Your task to perform on an android device: create a new album in the google photos Image 0: 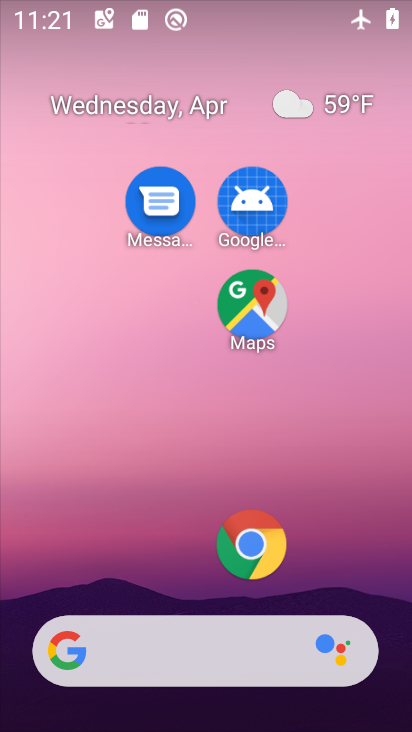
Step 0: drag from (174, 491) to (159, 141)
Your task to perform on an android device: create a new album in the google photos Image 1: 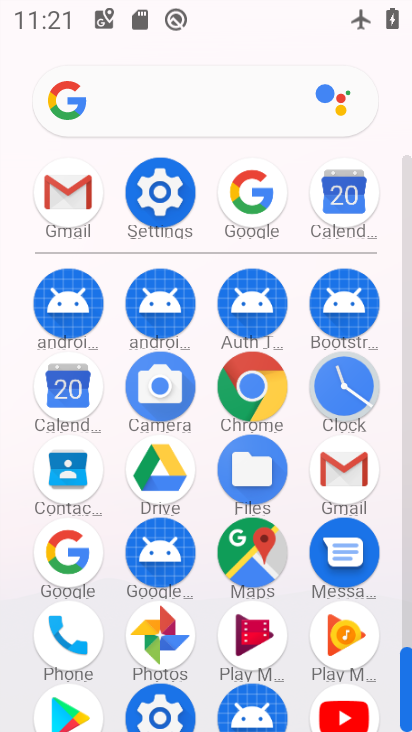
Step 1: click (154, 613)
Your task to perform on an android device: create a new album in the google photos Image 2: 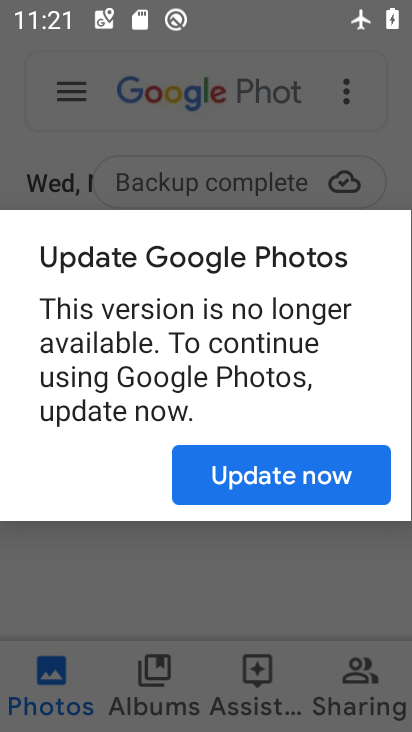
Step 2: click (248, 455)
Your task to perform on an android device: create a new album in the google photos Image 3: 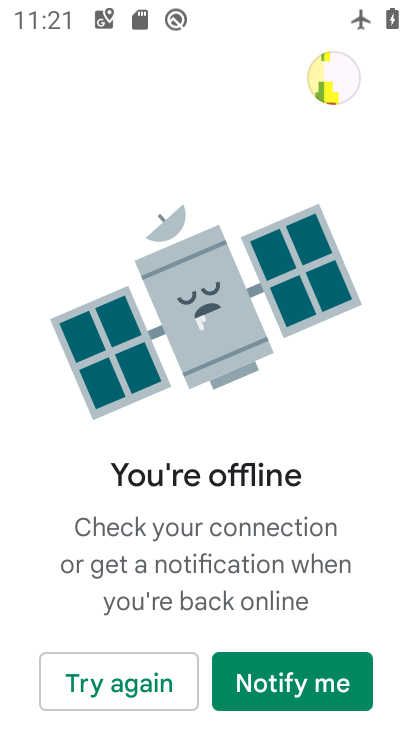
Step 3: press back button
Your task to perform on an android device: create a new album in the google photos Image 4: 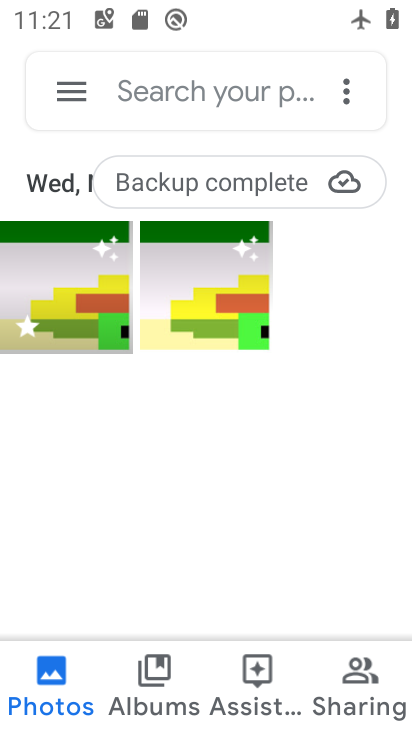
Step 4: click (337, 87)
Your task to perform on an android device: create a new album in the google photos Image 5: 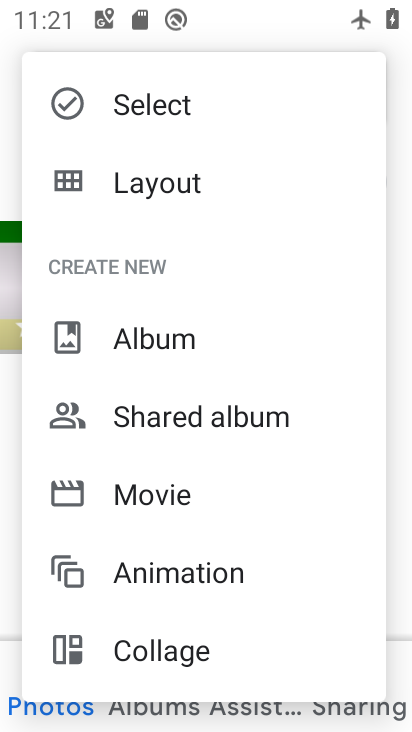
Step 5: click (147, 313)
Your task to perform on an android device: create a new album in the google photos Image 6: 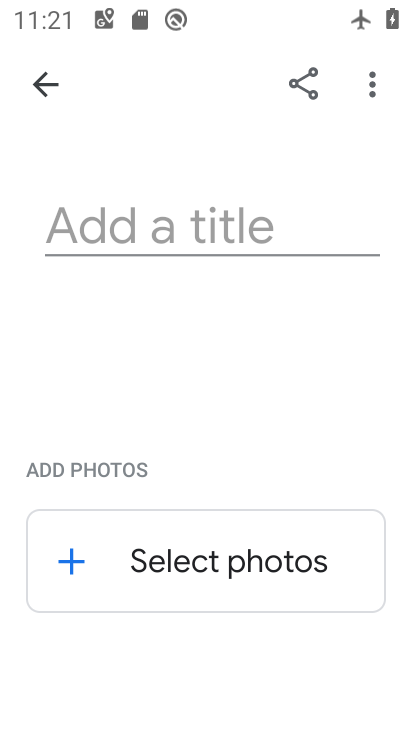
Step 6: click (222, 240)
Your task to perform on an android device: create a new album in the google photos Image 7: 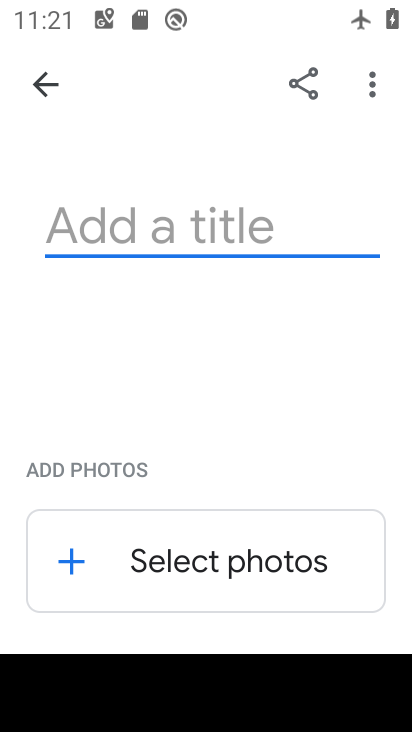
Step 7: type "vnfgh"
Your task to perform on an android device: create a new album in the google photos Image 8: 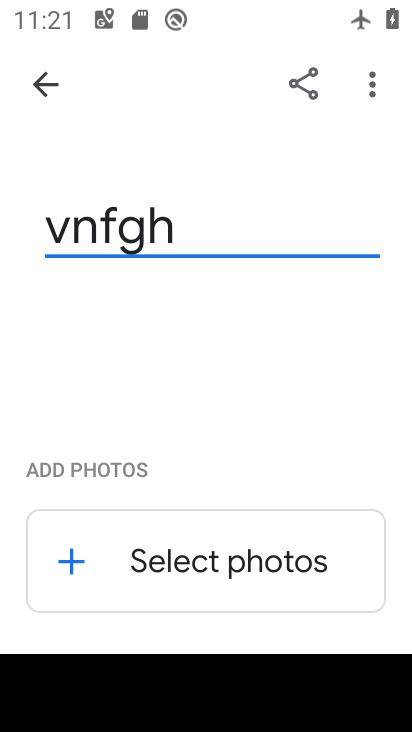
Step 8: click (67, 555)
Your task to perform on an android device: create a new album in the google photos Image 9: 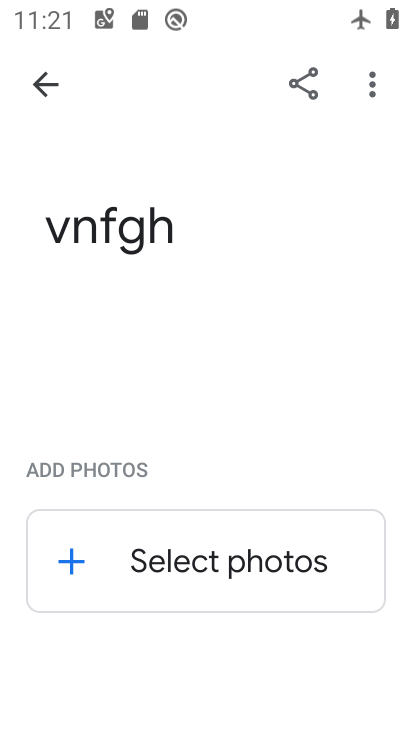
Step 9: click (71, 559)
Your task to perform on an android device: create a new album in the google photos Image 10: 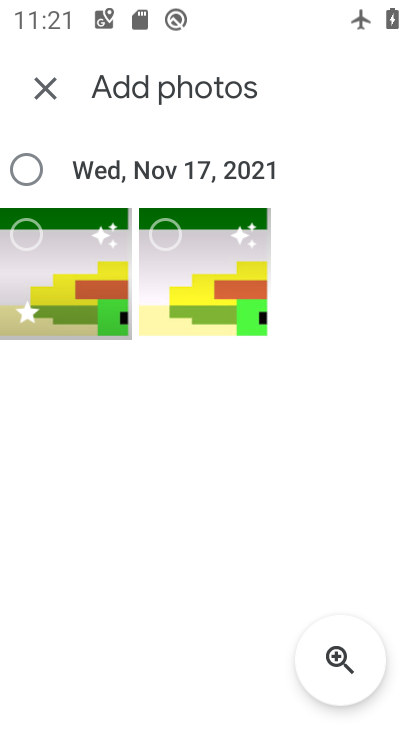
Step 10: click (198, 264)
Your task to perform on an android device: create a new album in the google photos Image 11: 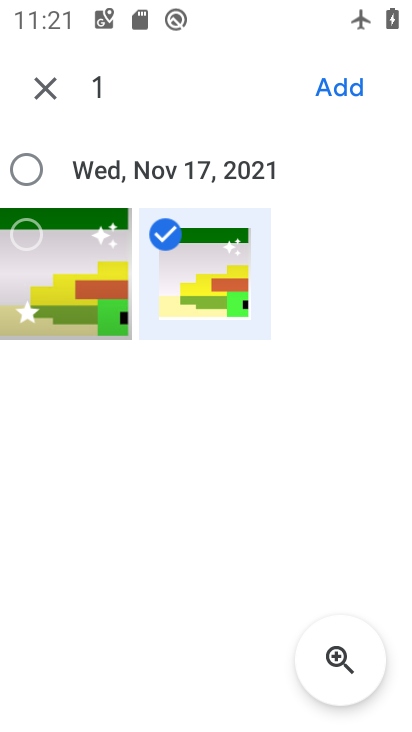
Step 11: click (327, 96)
Your task to perform on an android device: create a new album in the google photos Image 12: 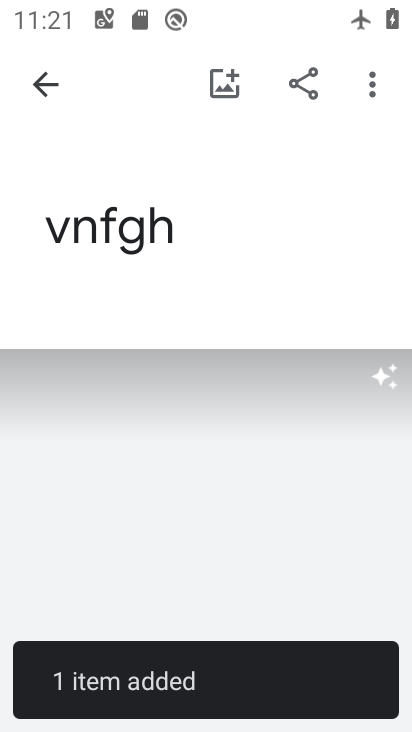
Step 12: task complete